Your task to perform on an android device: Open calendar and show me the third week of next month Image 0: 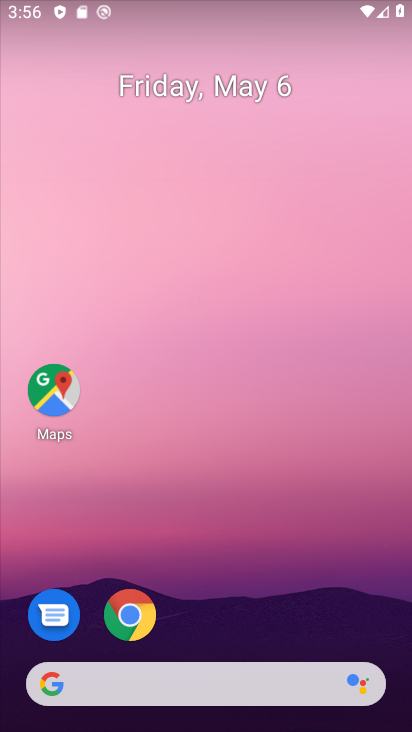
Step 0: drag from (203, 652) to (217, 12)
Your task to perform on an android device: Open calendar and show me the third week of next month Image 1: 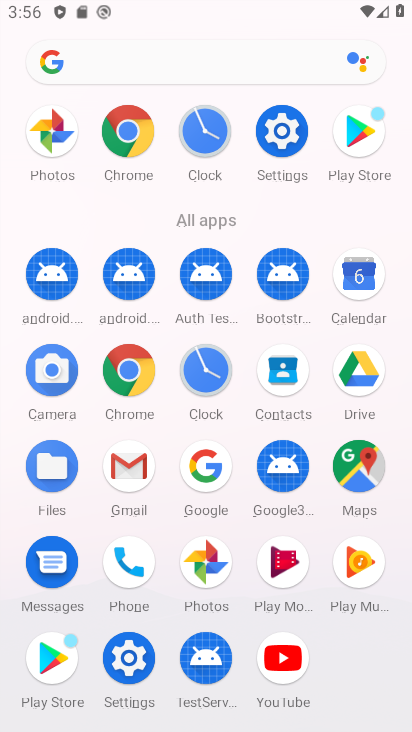
Step 1: click (370, 276)
Your task to perform on an android device: Open calendar and show me the third week of next month Image 2: 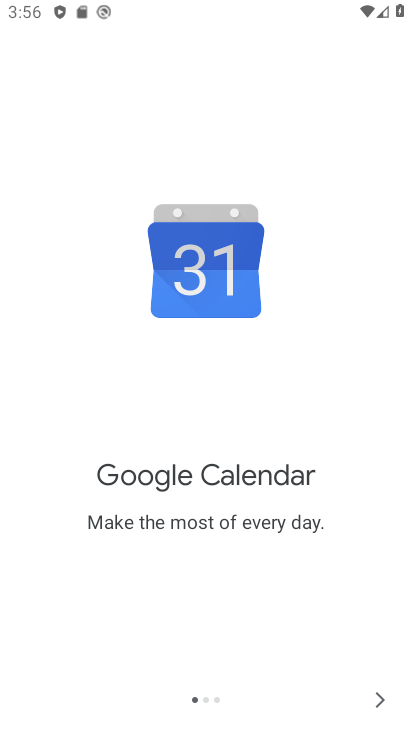
Step 2: click (372, 689)
Your task to perform on an android device: Open calendar and show me the third week of next month Image 3: 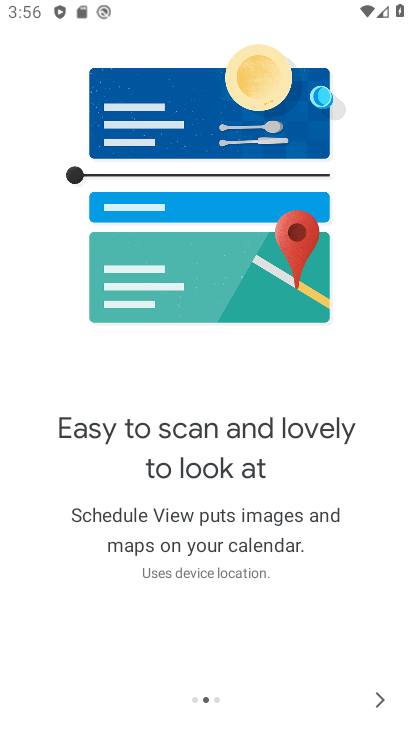
Step 3: click (383, 699)
Your task to perform on an android device: Open calendar and show me the third week of next month Image 4: 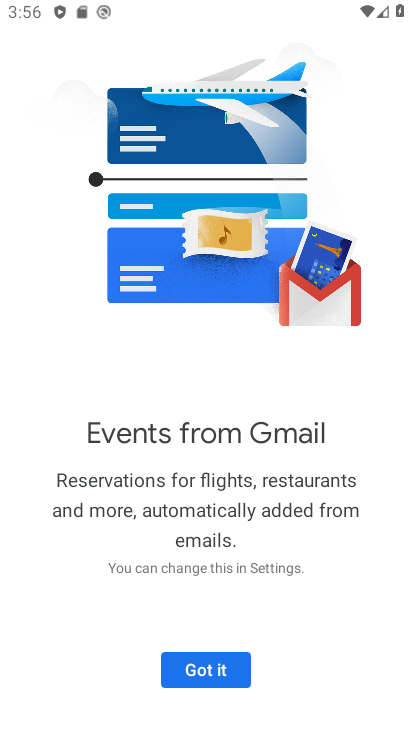
Step 4: click (235, 669)
Your task to perform on an android device: Open calendar and show me the third week of next month Image 5: 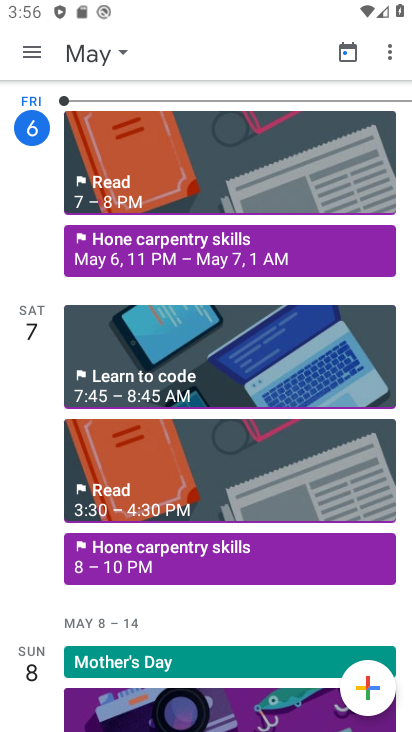
Step 5: click (22, 53)
Your task to perform on an android device: Open calendar and show me the third week of next month Image 6: 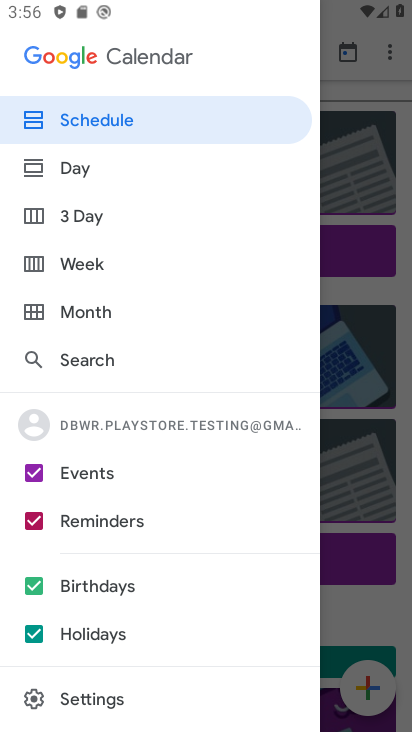
Step 6: click (84, 263)
Your task to perform on an android device: Open calendar and show me the third week of next month Image 7: 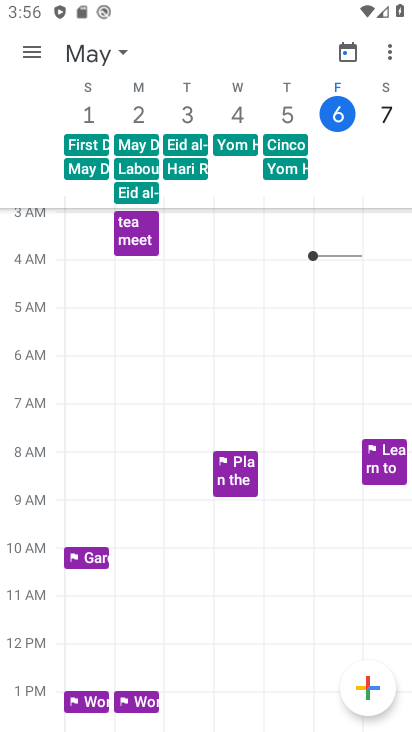
Step 7: task complete